Your task to perform on an android device: Open calendar and show me the fourth week of next month Image 0: 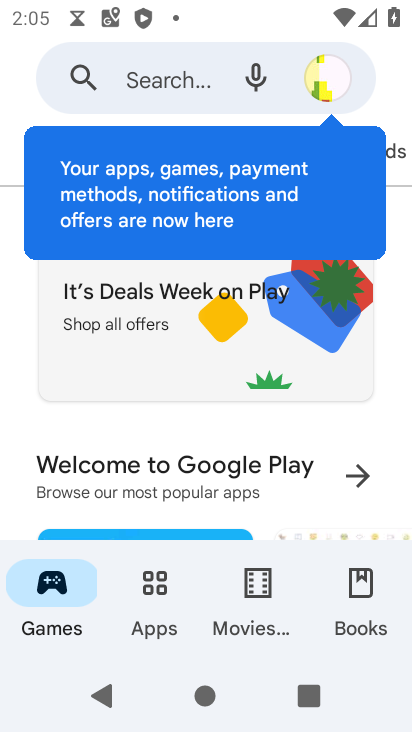
Step 0: press home button
Your task to perform on an android device: Open calendar and show me the fourth week of next month Image 1: 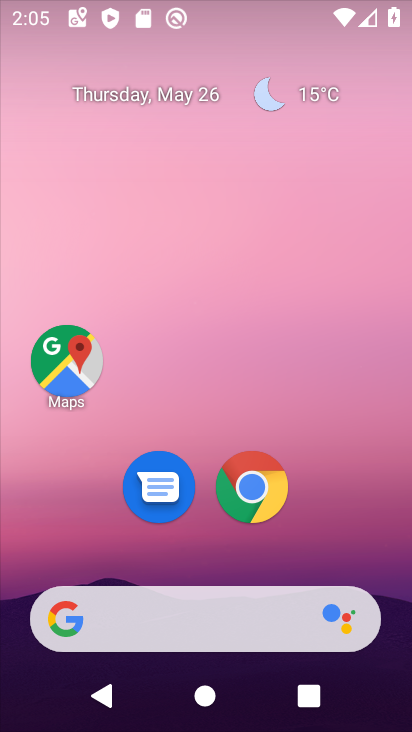
Step 1: drag from (223, 560) to (216, 199)
Your task to perform on an android device: Open calendar and show me the fourth week of next month Image 2: 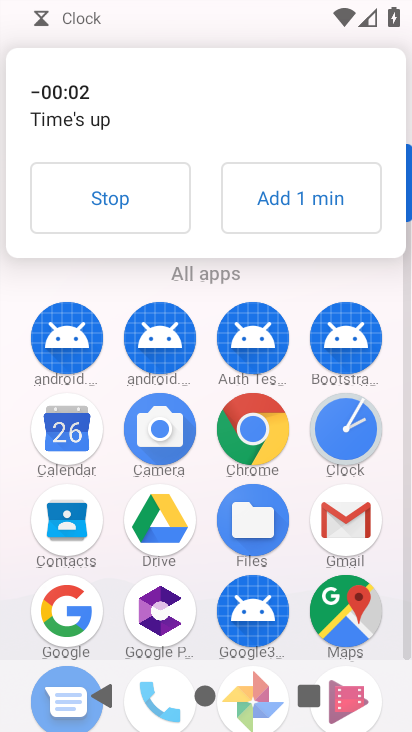
Step 2: click (132, 202)
Your task to perform on an android device: Open calendar and show me the fourth week of next month Image 3: 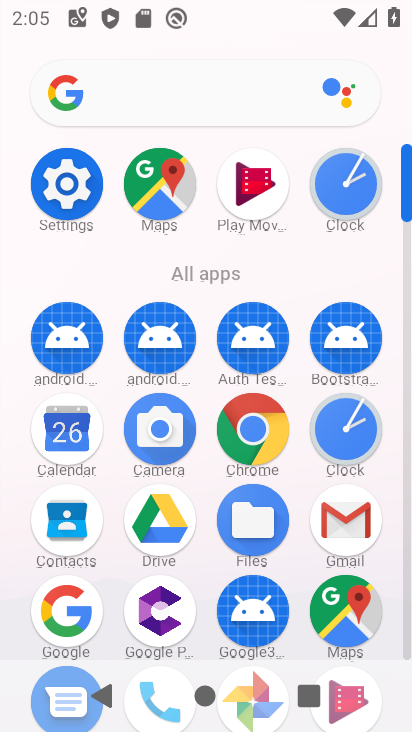
Step 3: click (337, 202)
Your task to perform on an android device: Open calendar and show me the fourth week of next month Image 4: 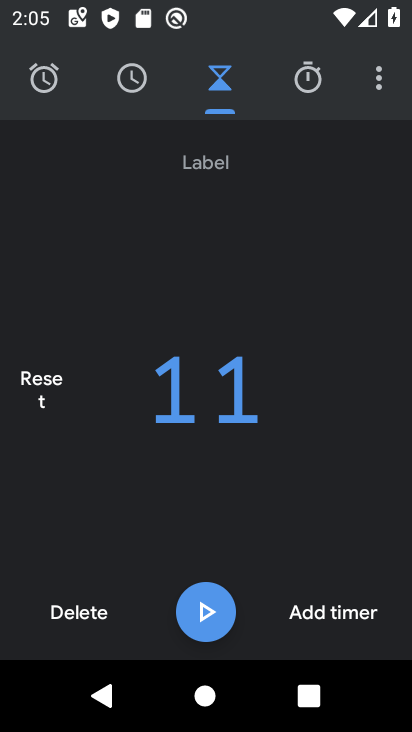
Step 4: press home button
Your task to perform on an android device: Open calendar and show me the fourth week of next month Image 5: 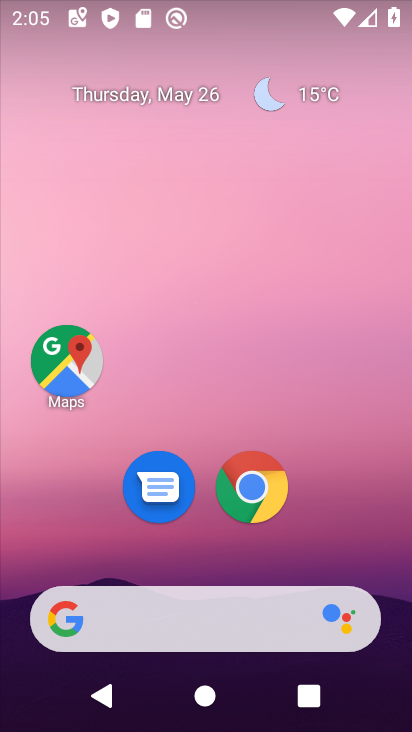
Step 5: drag from (212, 551) to (185, 161)
Your task to perform on an android device: Open calendar and show me the fourth week of next month Image 6: 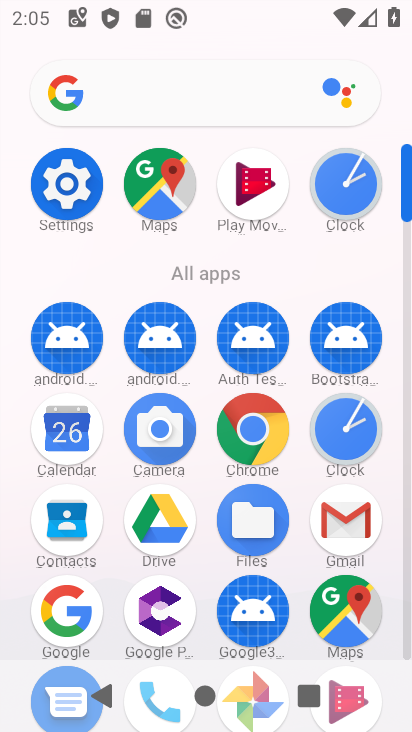
Step 6: click (62, 424)
Your task to perform on an android device: Open calendar and show me the fourth week of next month Image 7: 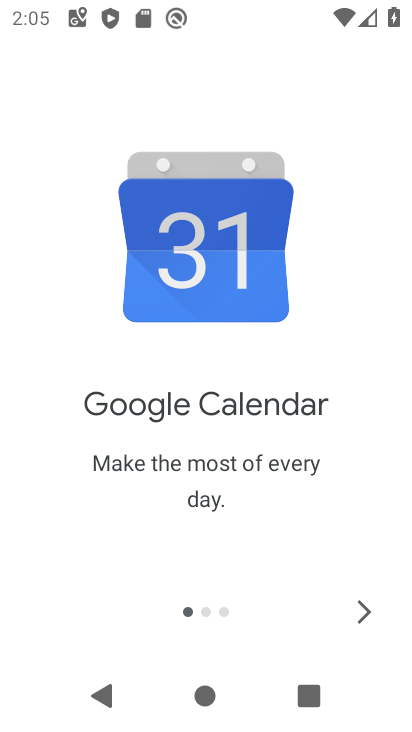
Step 7: click (347, 597)
Your task to perform on an android device: Open calendar and show me the fourth week of next month Image 8: 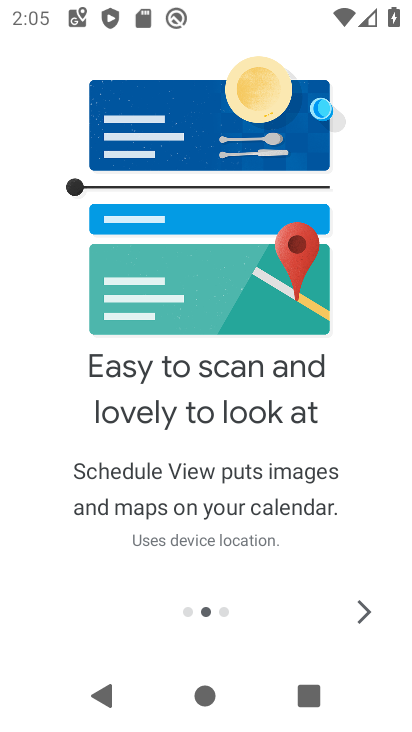
Step 8: click (347, 597)
Your task to perform on an android device: Open calendar and show me the fourth week of next month Image 9: 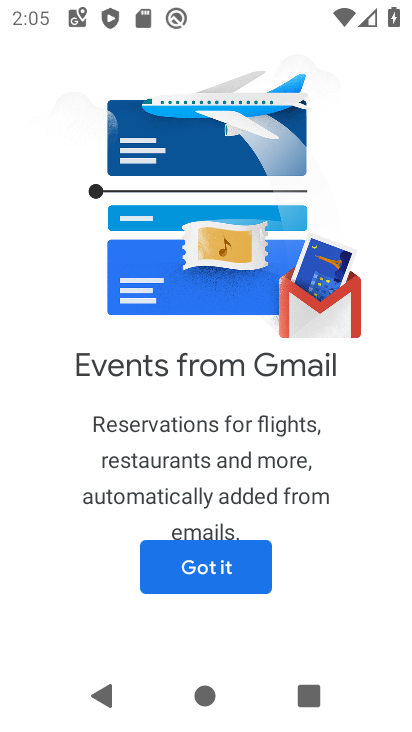
Step 9: click (210, 555)
Your task to perform on an android device: Open calendar and show me the fourth week of next month Image 10: 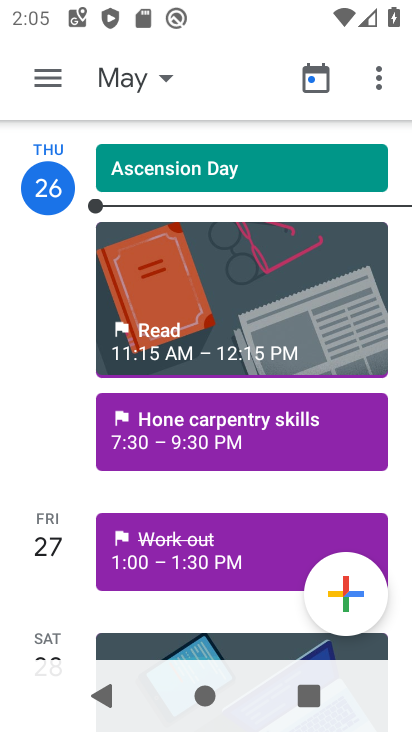
Step 10: click (157, 74)
Your task to perform on an android device: Open calendar and show me the fourth week of next month Image 11: 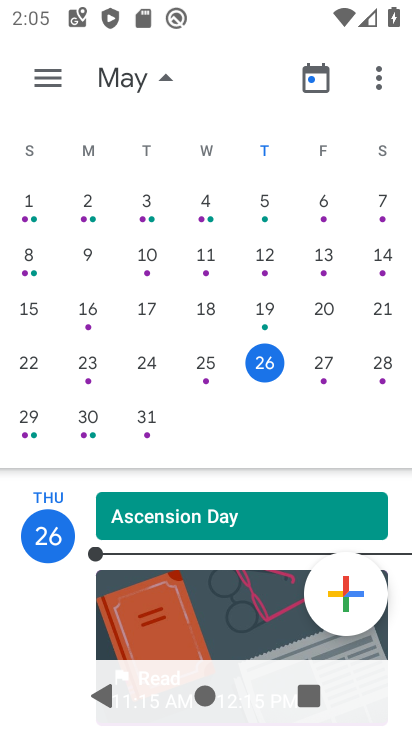
Step 11: drag from (349, 330) to (58, 276)
Your task to perform on an android device: Open calendar and show me the fourth week of next month Image 12: 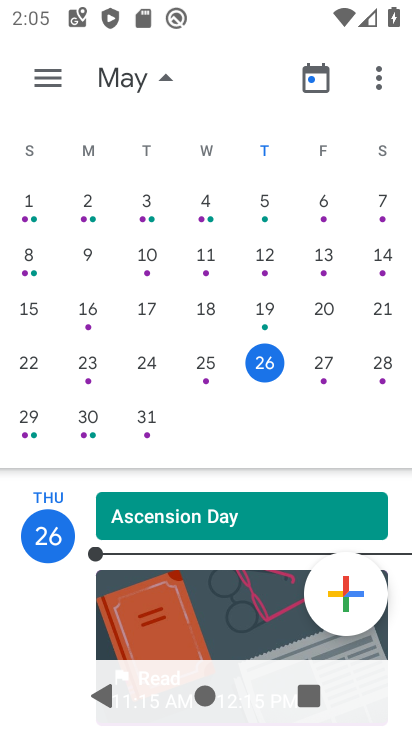
Step 12: drag from (351, 287) to (12, 304)
Your task to perform on an android device: Open calendar and show me the fourth week of next month Image 13: 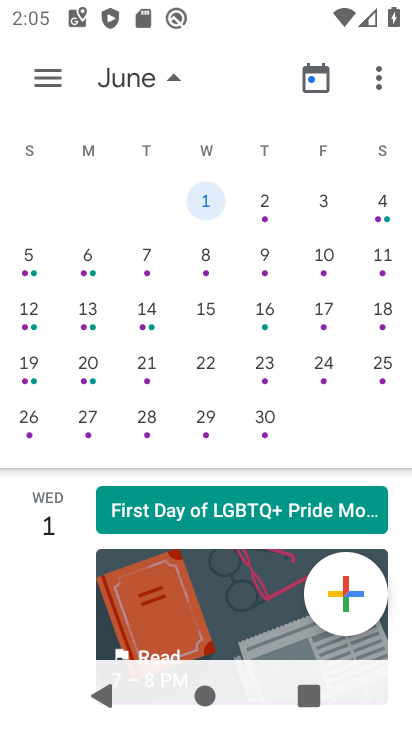
Step 13: click (29, 357)
Your task to perform on an android device: Open calendar and show me the fourth week of next month Image 14: 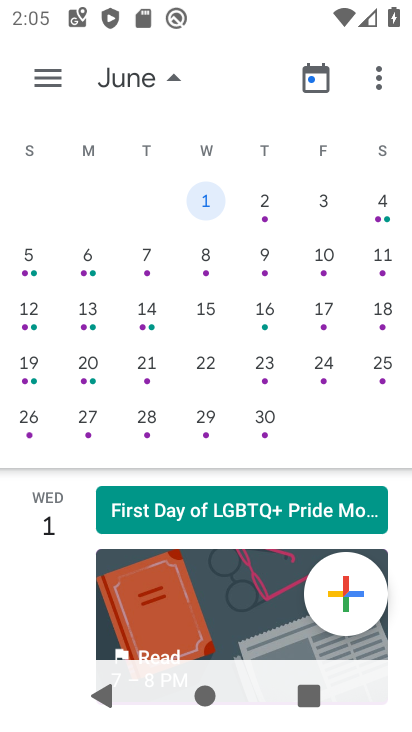
Step 14: click (35, 364)
Your task to perform on an android device: Open calendar and show me the fourth week of next month Image 15: 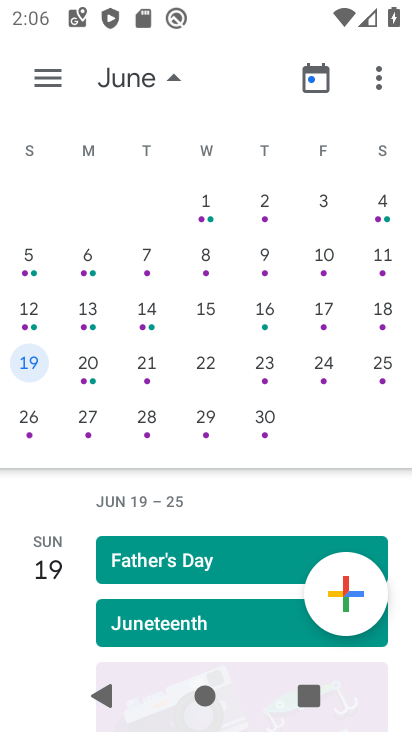
Step 15: task complete